Your task to perform on an android device: toggle improve location accuracy Image 0: 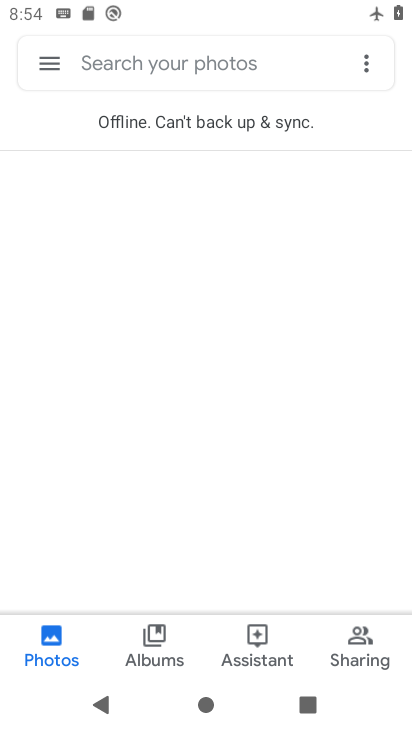
Step 0: press home button
Your task to perform on an android device: toggle improve location accuracy Image 1: 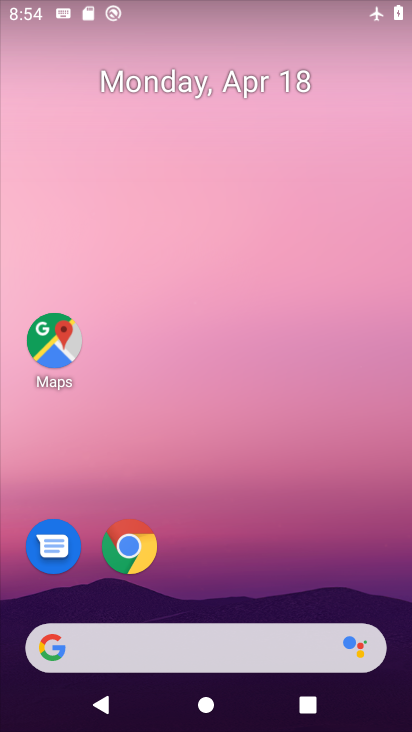
Step 1: drag from (377, 605) to (304, 112)
Your task to perform on an android device: toggle improve location accuracy Image 2: 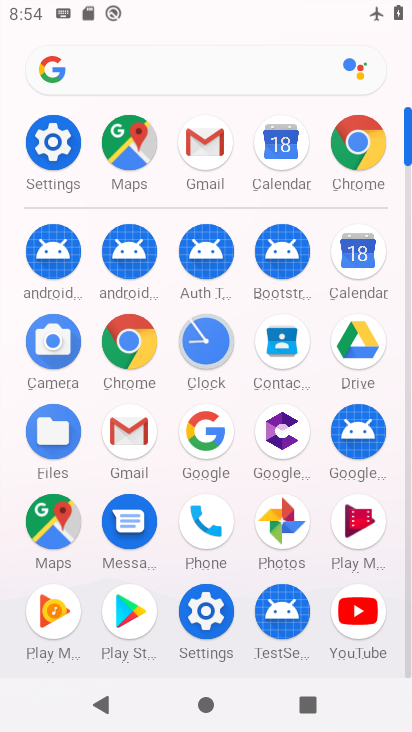
Step 2: click (54, 136)
Your task to perform on an android device: toggle improve location accuracy Image 3: 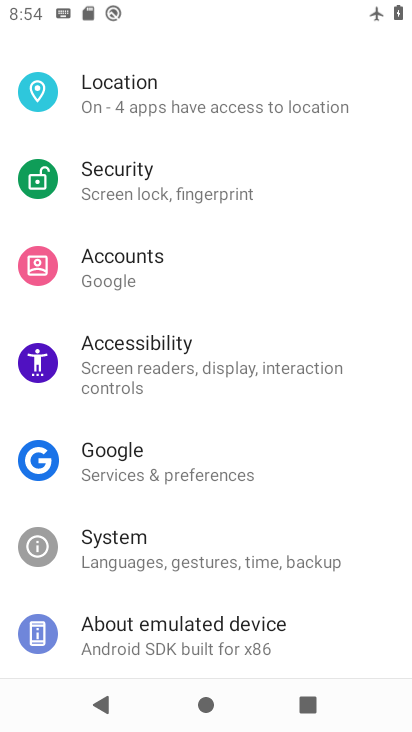
Step 3: click (156, 118)
Your task to perform on an android device: toggle improve location accuracy Image 4: 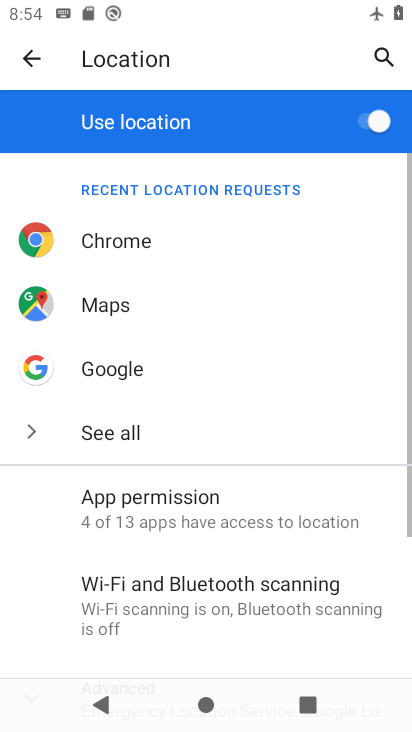
Step 4: drag from (229, 558) to (237, 293)
Your task to perform on an android device: toggle improve location accuracy Image 5: 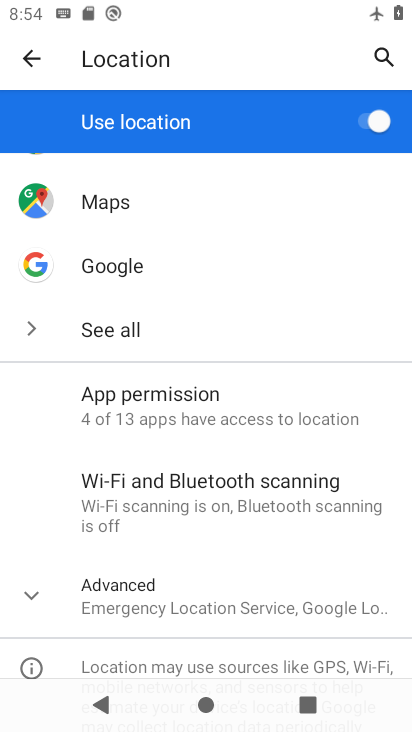
Step 5: click (224, 591)
Your task to perform on an android device: toggle improve location accuracy Image 6: 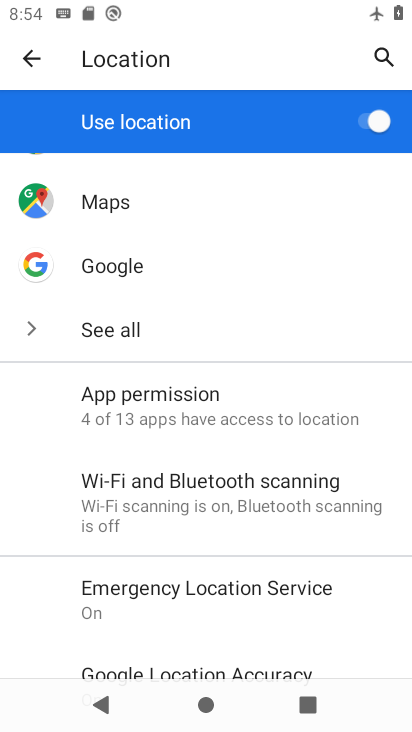
Step 6: drag from (243, 613) to (265, 137)
Your task to perform on an android device: toggle improve location accuracy Image 7: 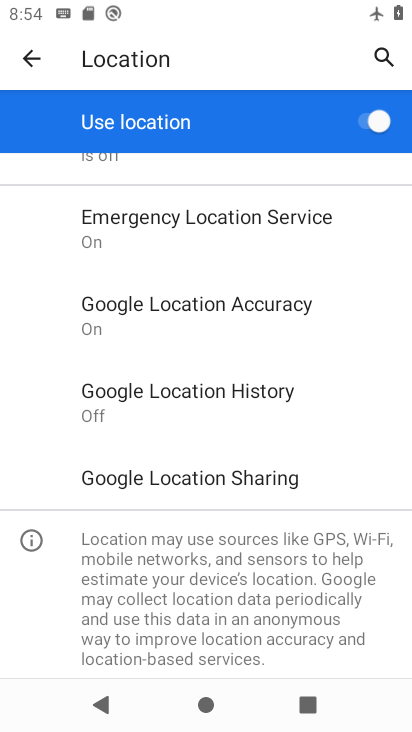
Step 7: click (228, 318)
Your task to perform on an android device: toggle improve location accuracy Image 8: 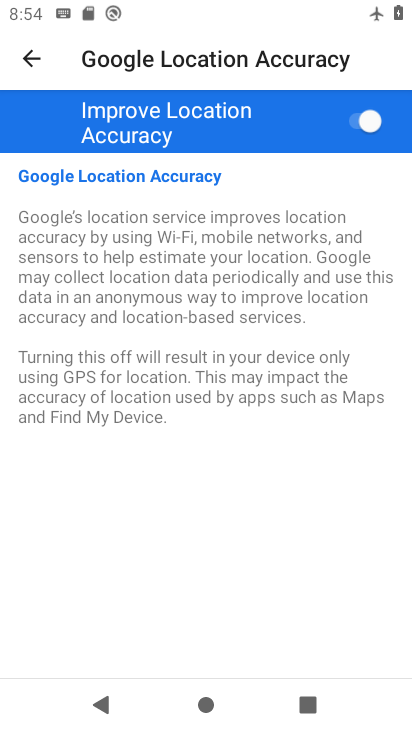
Step 8: click (358, 126)
Your task to perform on an android device: toggle improve location accuracy Image 9: 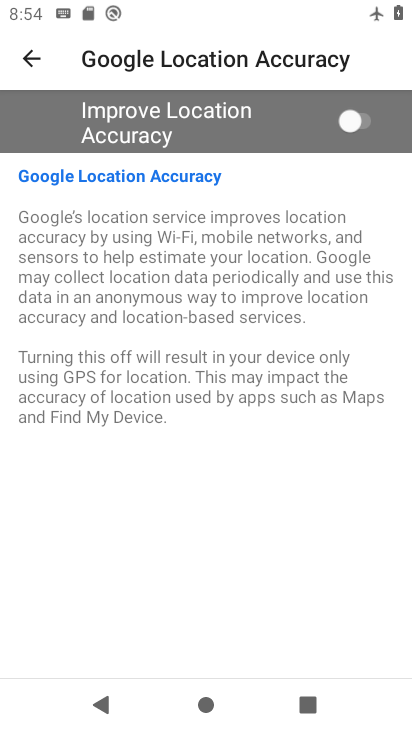
Step 9: task complete